Your task to perform on an android device: turn off location Image 0: 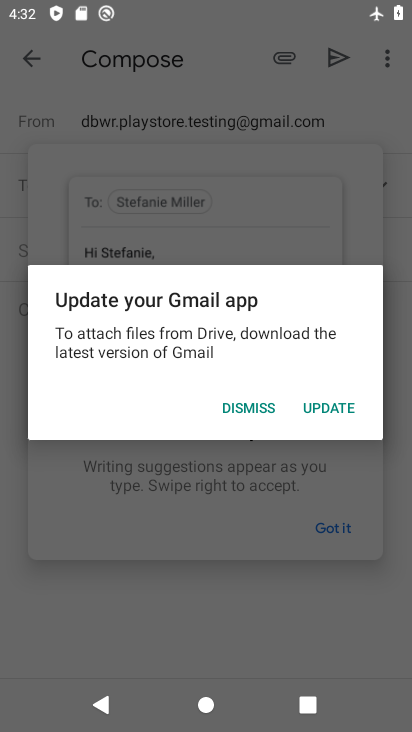
Step 0: press home button
Your task to perform on an android device: turn off location Image 1: 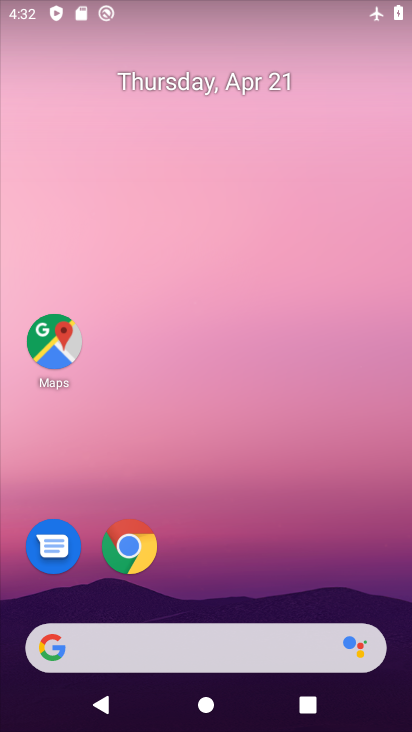
Step 1: drag from (212, 445) to (252, 75)
Your task to perform on an android device: turn off location Image 2: 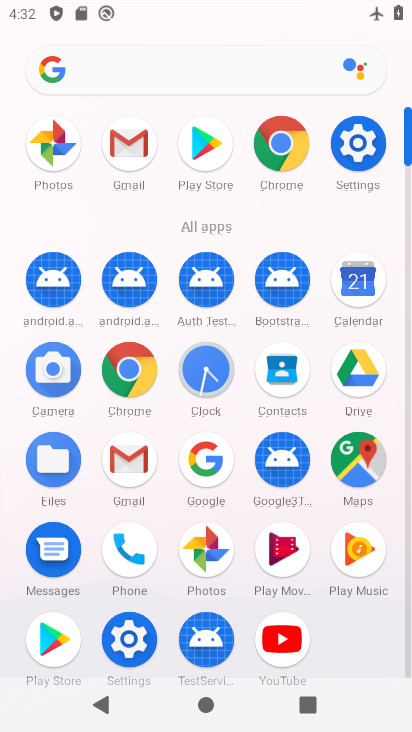
Step 2: click (349, 462)
Your task to perform on an android device: turn off location Image 3: 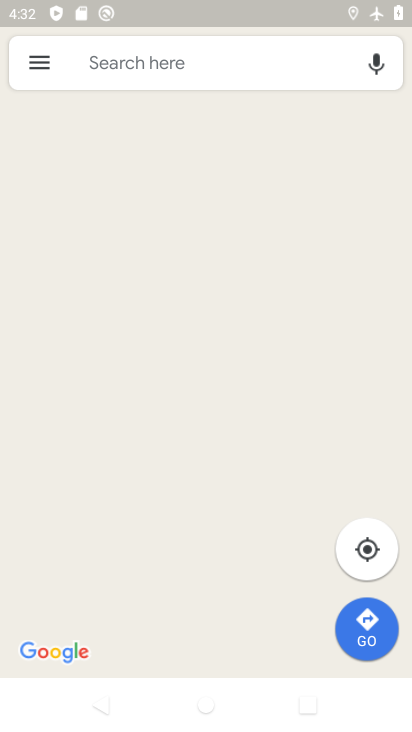
Step 3: click (46, 52)
Your task to perform on an android device: turn off location Image 4: 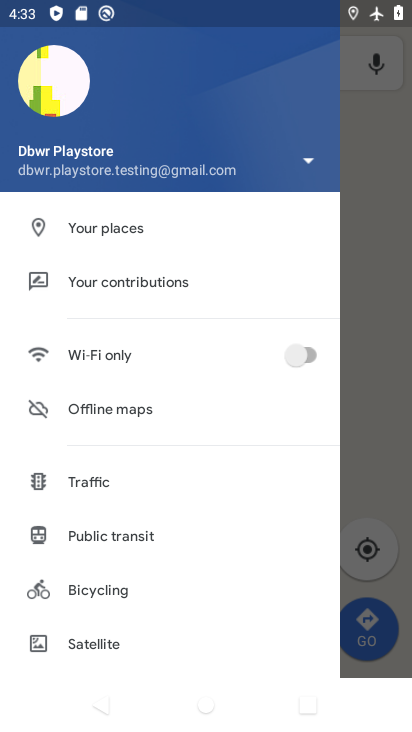
Step 4: drag from (150, 648) to (163, 163)
Your task to perform on an android device: turn off location Image 5: 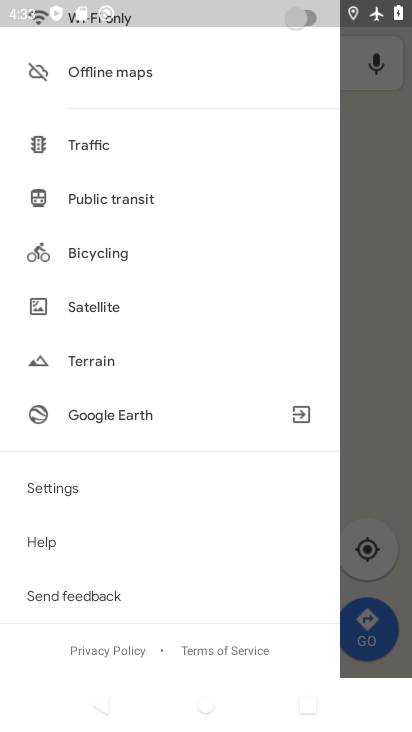
Step 5: click (66, 488)
Your task to perform on an android device: turn off location Image 6: 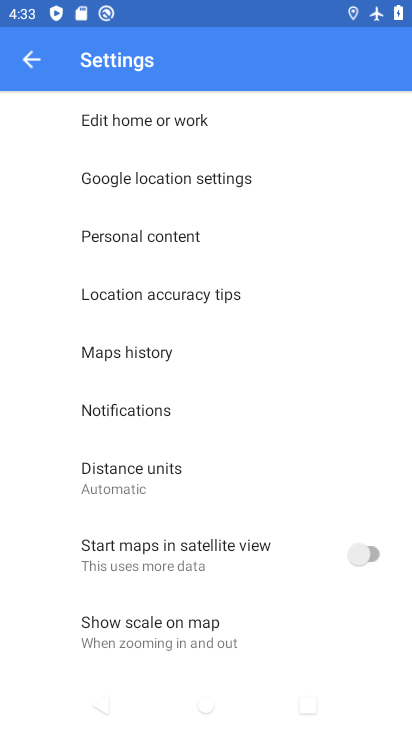
Step 6: click (219, 175)
Your task to perform on an android device: turn off location Image 7: 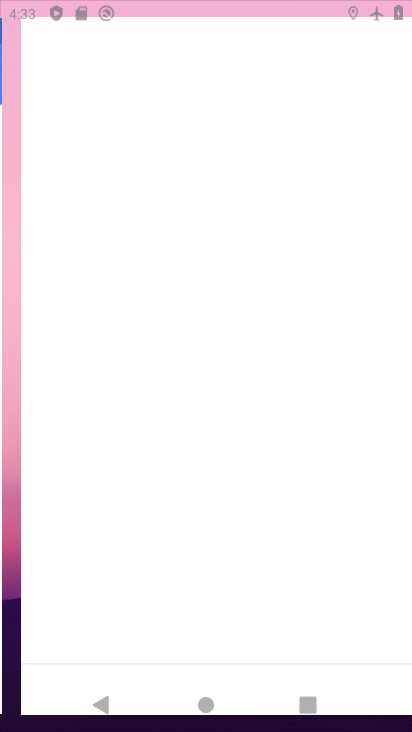
Step 7: click (219, 175)
Your task to perform on an android device: turn off location Image 8: 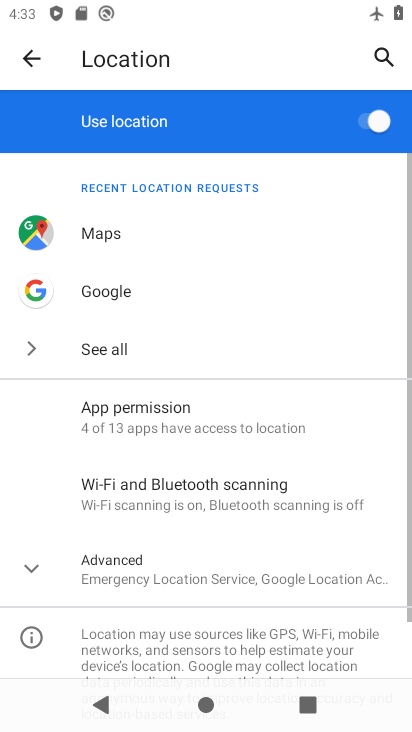
Step 8: click (369, 123)
Your task to perform on an android device: turn off location Image 9: 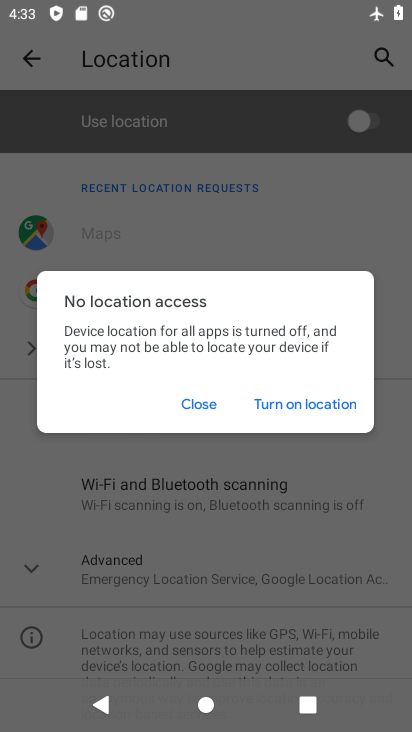
Step 9: click (200, 402)
Your task to perform on an android device: turn off location Image 10: 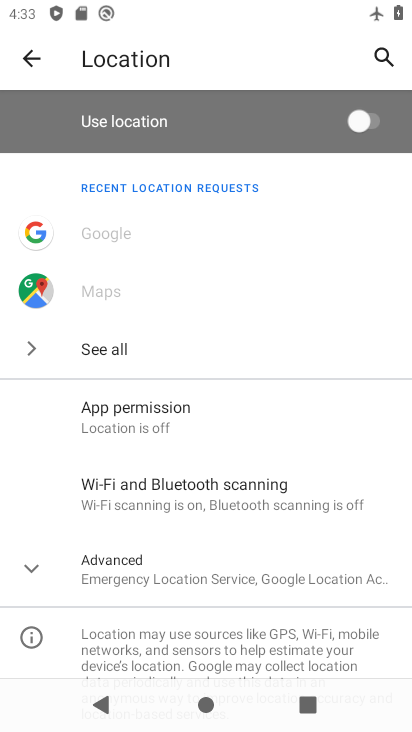
Step 10: task complete